Your task to perform on an android device: Go to Yahoo.com Image 0: 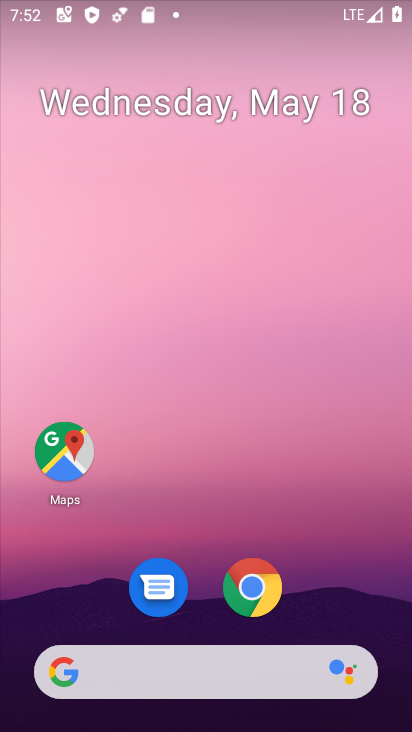
Step 0: click (252, 590)
Your task to perform on an android device: Go to Yahoo.com Image 1: 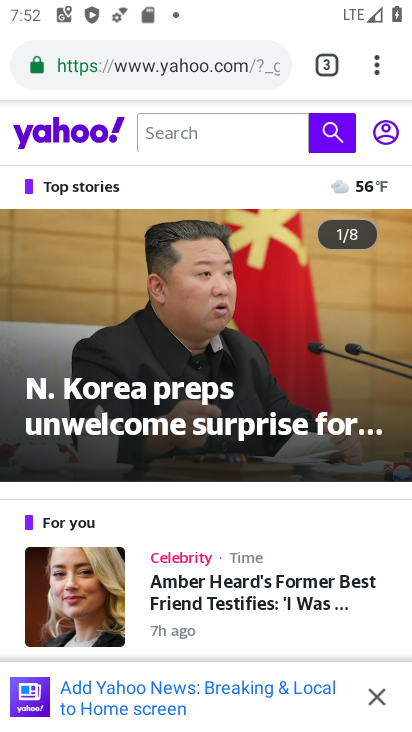
Step 1: task complete